Your task to perform on an android device: add a contact in the contacts app Image 0: 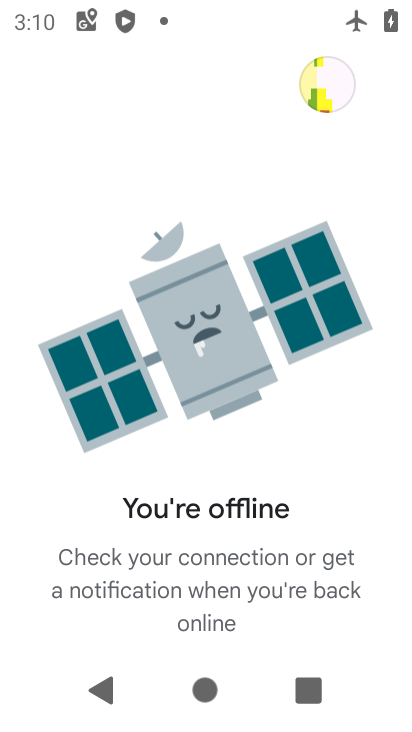
Step 0: press home button
Your task to perform on an android device: add a contact in the contacts app Image 1: 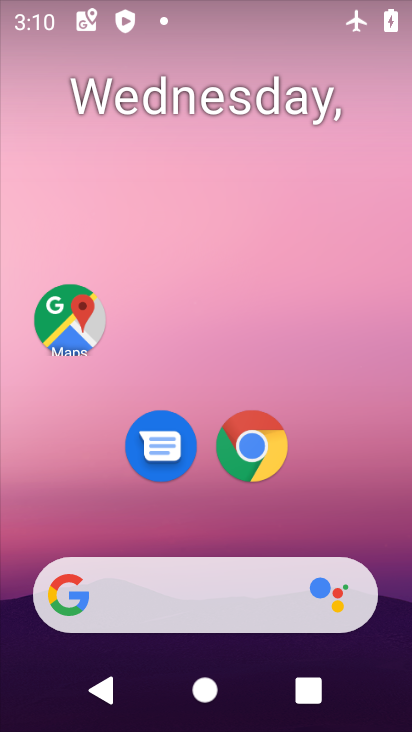
Step 1: drag from (218, 520) to (241, 81)
Your task to perform on an android device: add a contact in the contacts app Image 2: 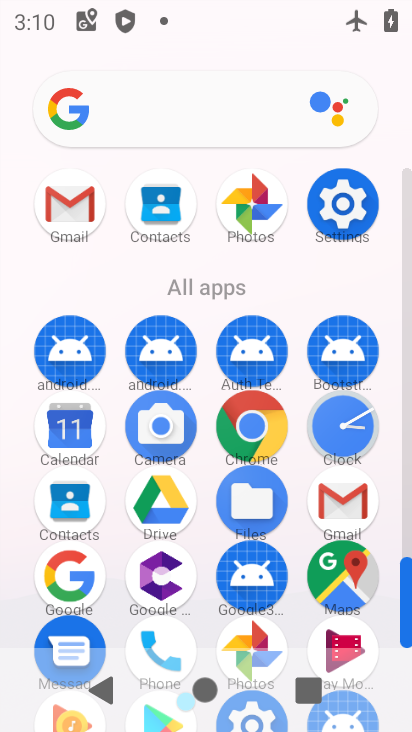
Step 2: click (74, 506)
Your task to perform on an android device: add a contact in the contacts app Image 3: 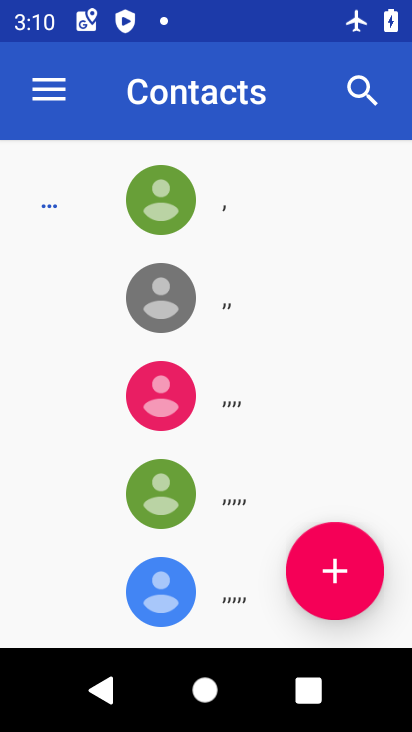
Step 3: click (344, 561)
Your task to perform on an android device: add a contact in the contacts app Image 4: 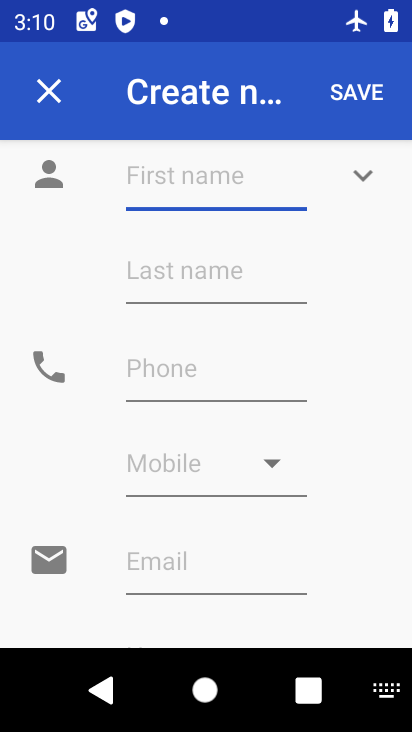
Step 4: type "tryrur6"
Your task to perform on an android device: add a contact in the contacts app Image 5: 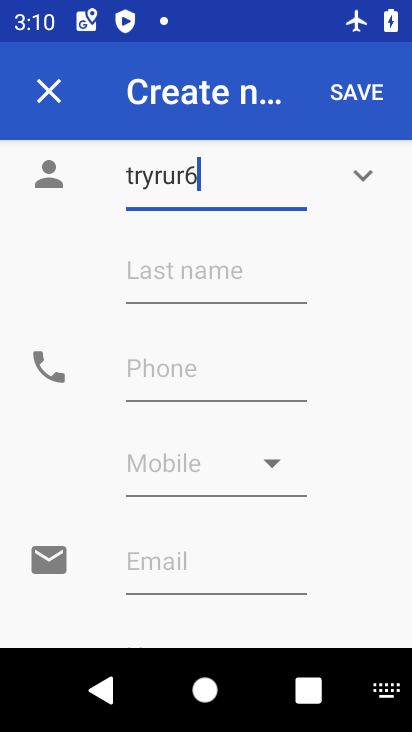
Step 5: click (336, 87)
Your task to perform on an android device: add a contact in the contacts app Image 6: 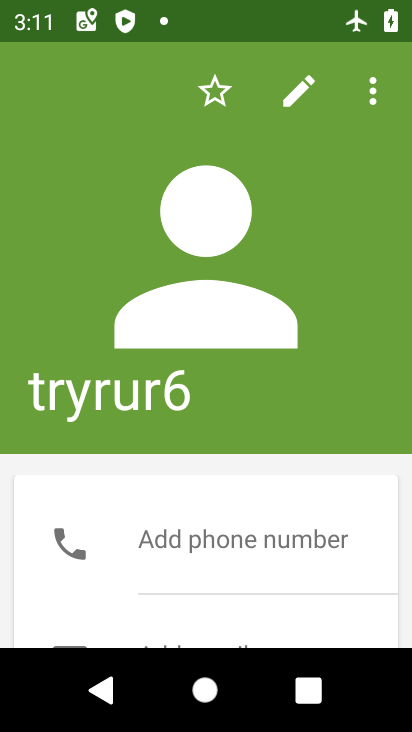
Step 6: task complete